Your task to perform on an android device: Go to Reddit.com Image 0: 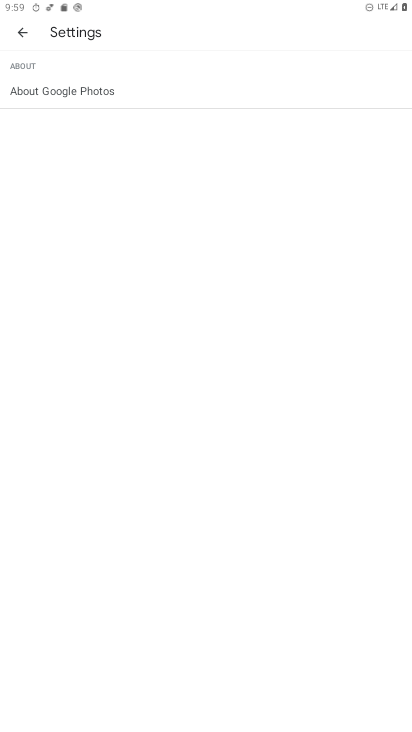
Step 0: press home button
Your task to perform on an android device: Go to Reddit.com Image 1: 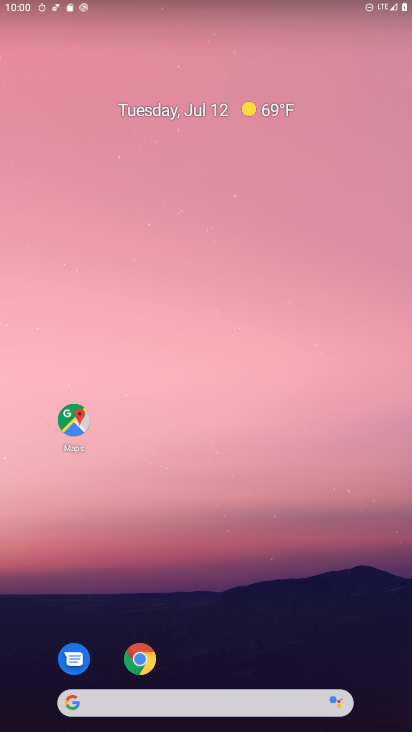
Step 1: drag from (202, 680) to (201, 192)
Your task to perform on an android device: Go to Reddit.com Image 2: 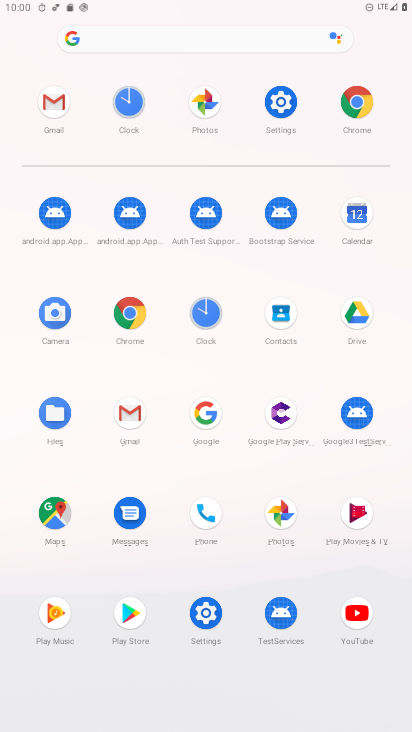
Step 2: click (124, 310)
Your task to perform on an android device: Go to Reddit.com Image 3: 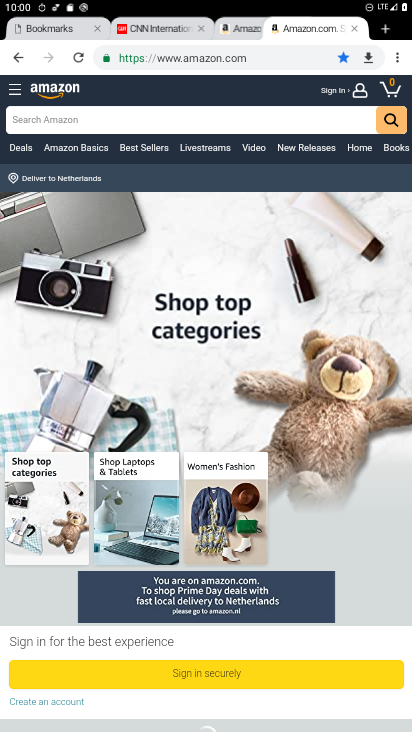
Step 3: click (399, 62)
Your task to perform on an android device: Go to Reddit.com Image 4: 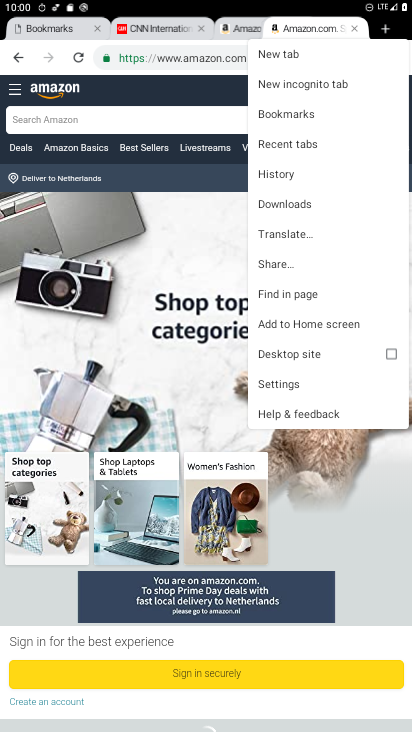
Step 4: click (274, 52)
Your task to perform on an android device: Go to Reddit.com Image 5: 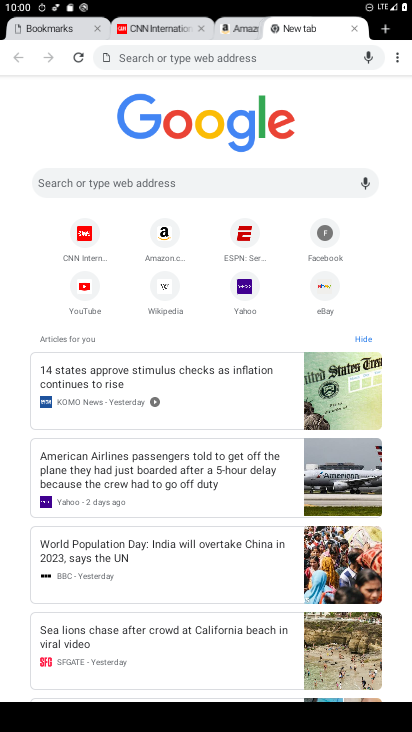
Step 5: click (169, 181)
Your task to perform on an android device: Go to Reddit.com Image 6: 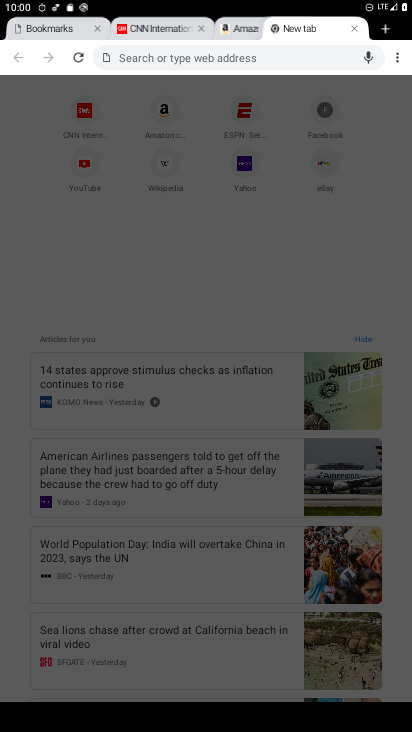
Step 6: type "reddit.com"
Your task to perform on an android device: Go to Reddit.com Image 7: 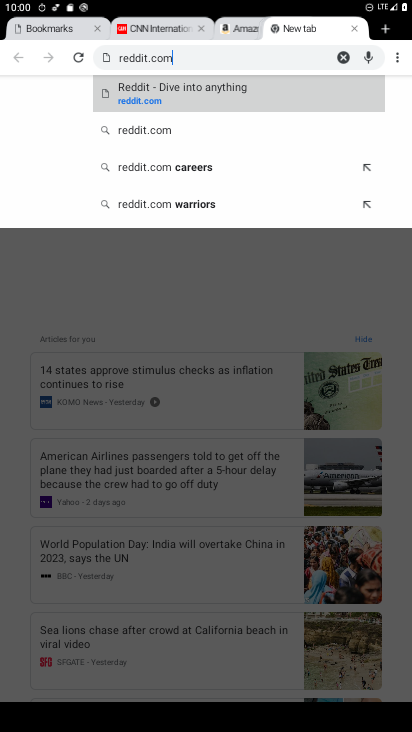
Step 7: type ""
Your task to perform on an android device: Go to Reddit.com Image 8: 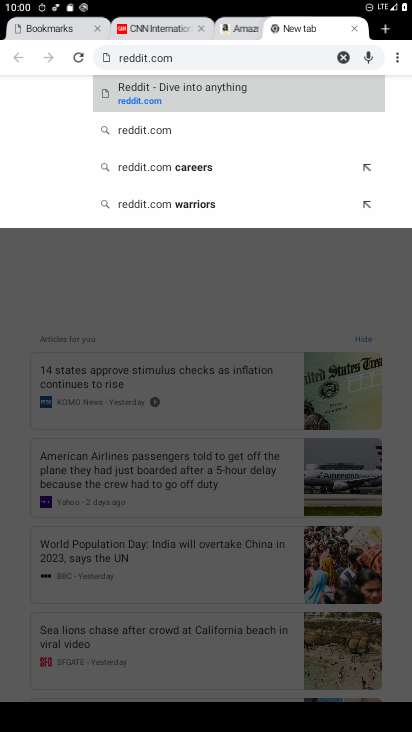
Step 8: click (140, 92)
Your task to perform on an android device: Go to Reddit.com Image 9: 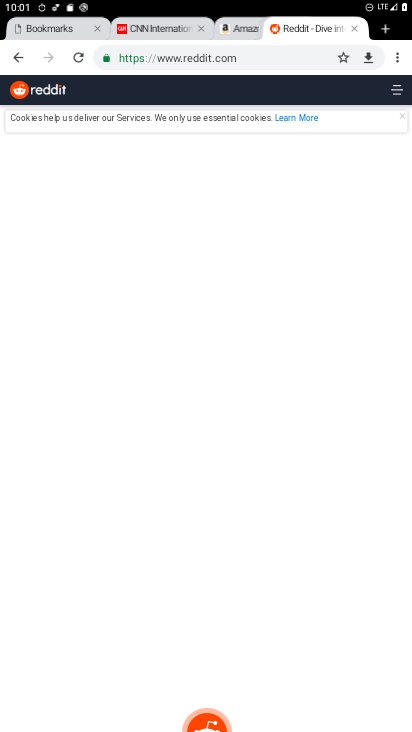
Step 9: task complete